Your task to perform on an android device: Check the settings for the Google Photos app Image 0: 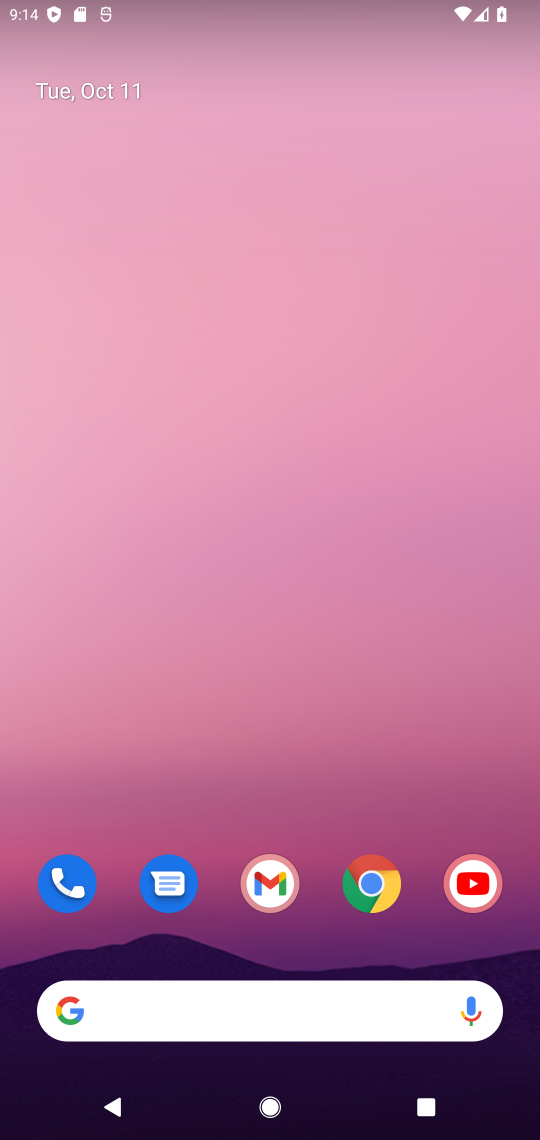
Step 0: click (71, 1010)
Your task to perform on an android device: Check the settings for the Google Photos app Image 1: 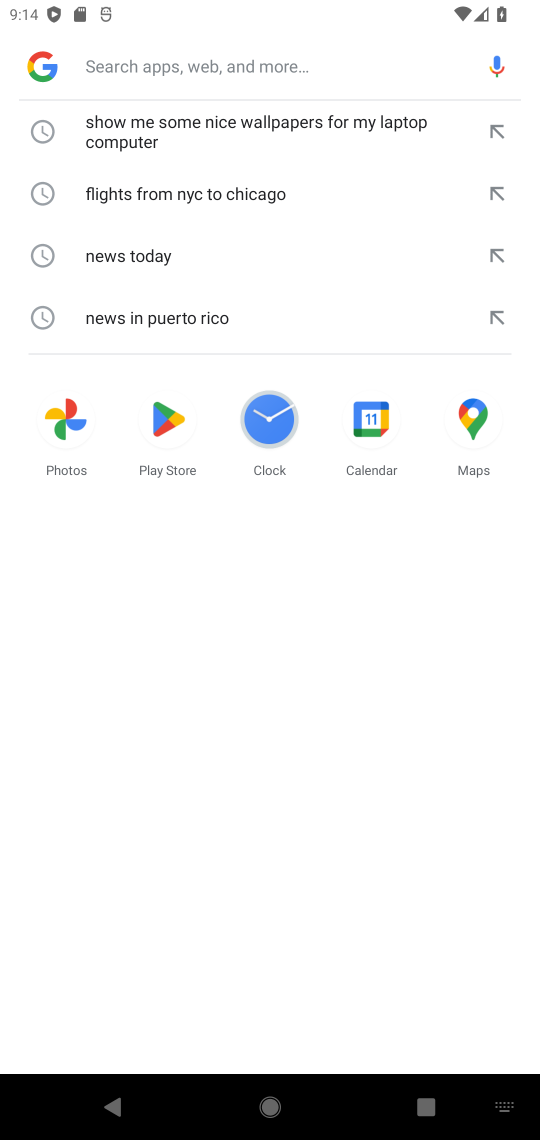
Step 1: press home button
Your task to perform on an android device: Check the settings for the Google Photos app Image 2: 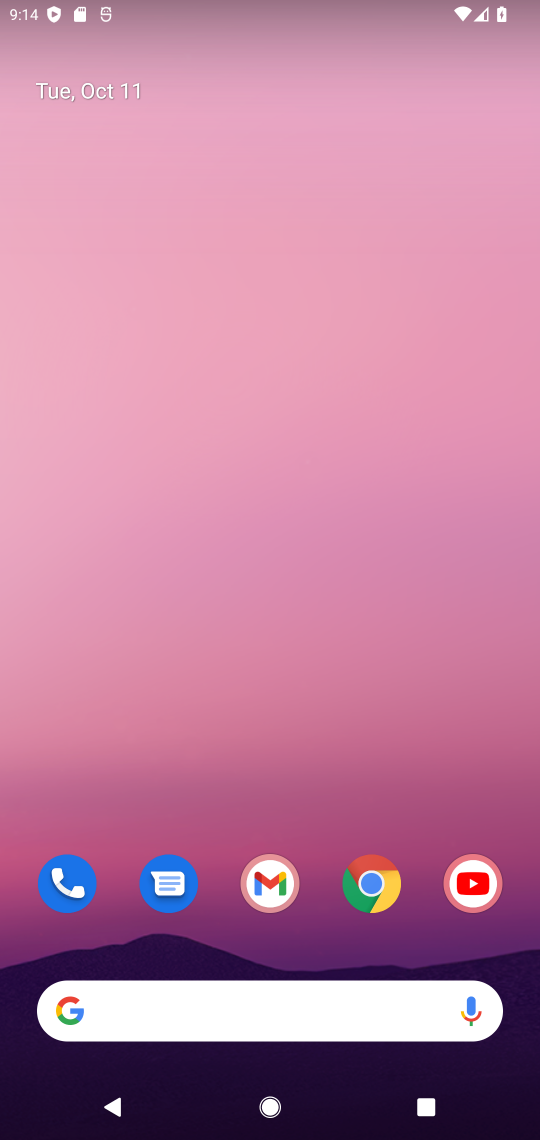
Step 2: drag from (275, 997) to (203, 242)
Your task to perform on an android device: Check the settings for the Google Photos app Image 3: 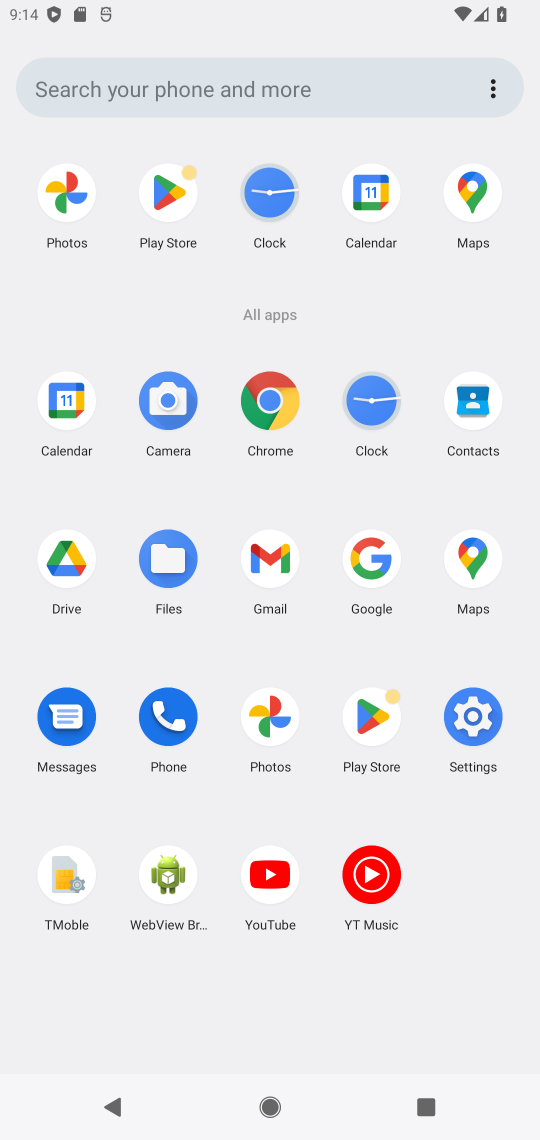
Step 3: click (271, 719)
Your task to perform on an android device: Check the settings for the Google Photos app Image 4: 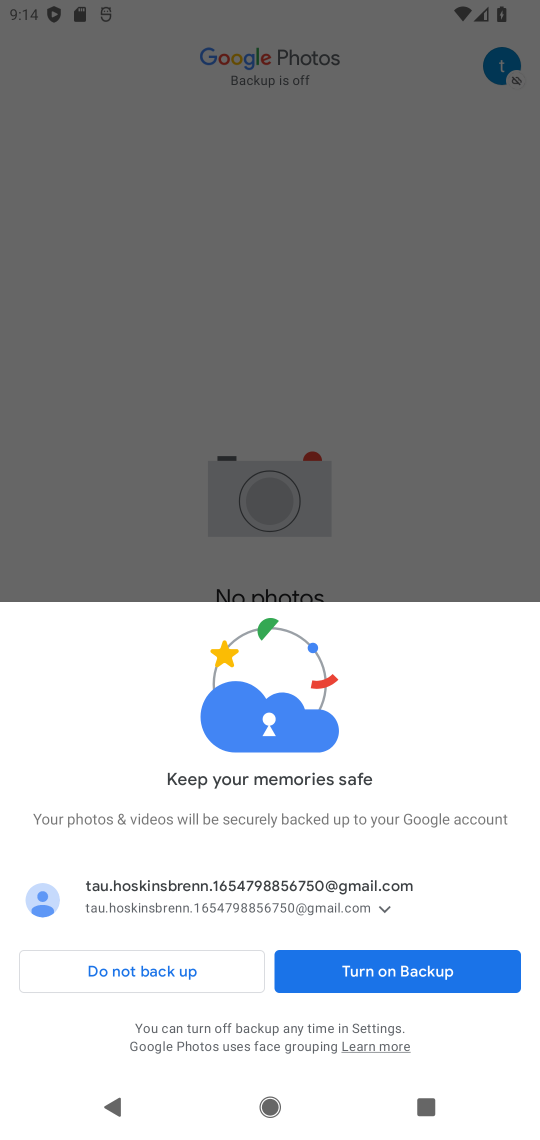
Step 4: click (175, 973)
Your task to perform on an android device: Check the settings for the Google Photos app Image 5: 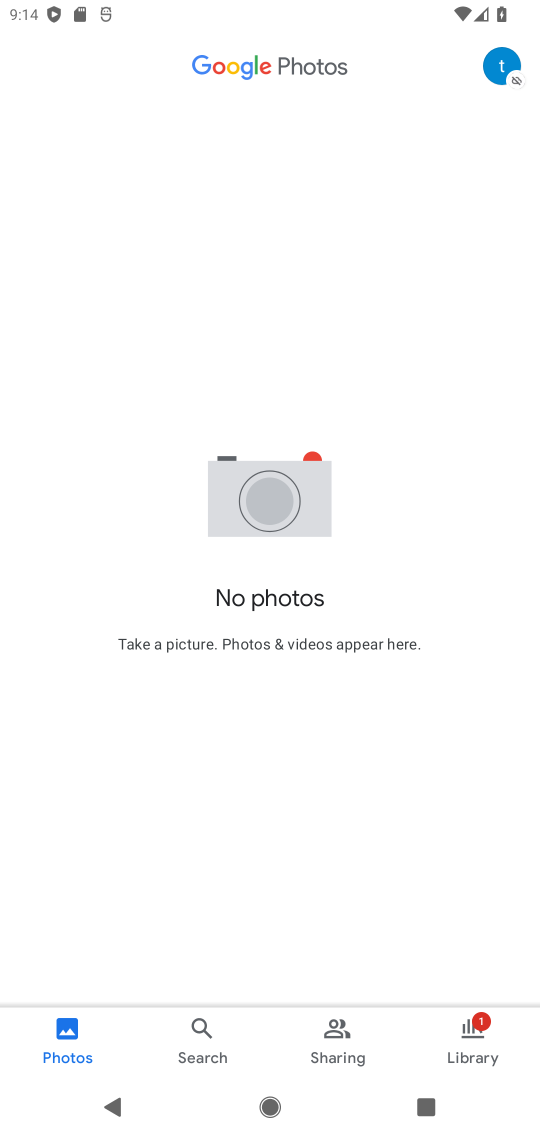
Step 5: click (504, 61)
Your task to perform on an android device: Check the settings for the Google Photos app Image 6: 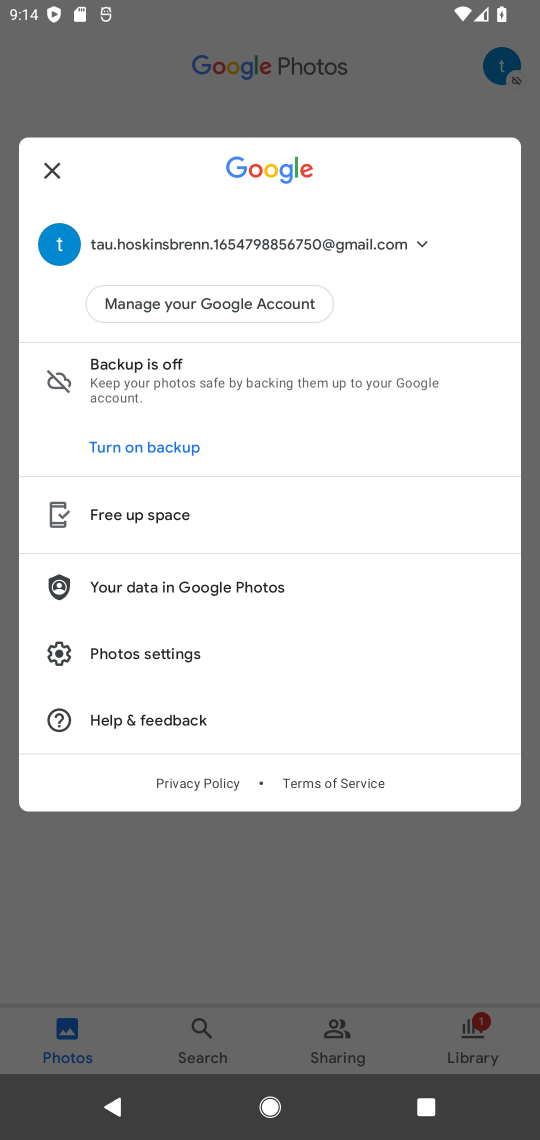
Step 6: click (144, 653)
Your task to perform on an android device: Check the settings for the Google Photos app Image 7: 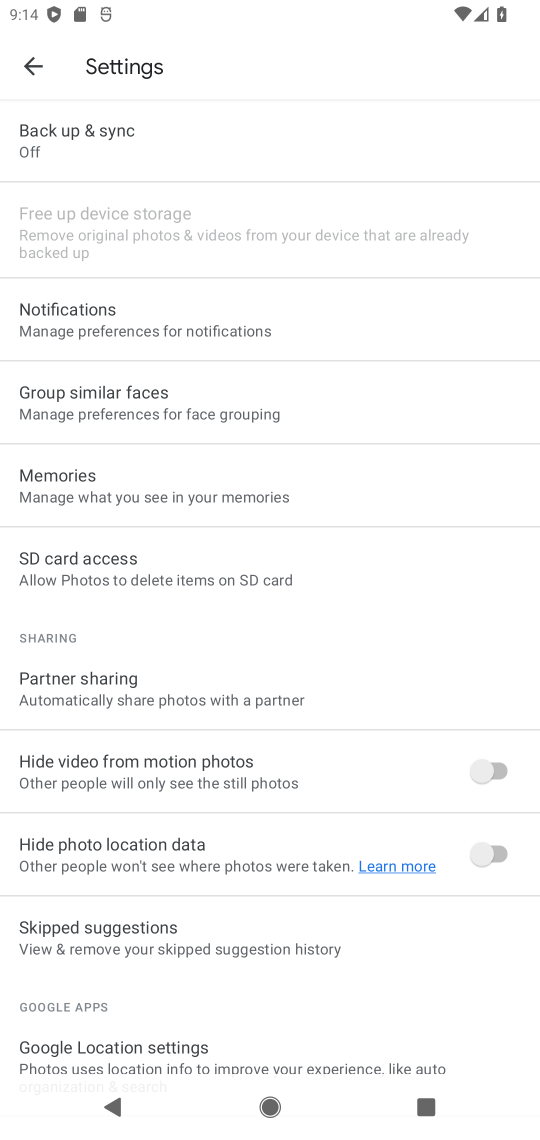
Step 7: task complete